Your task to perform on an android device: When is my next appointment? Image 0: 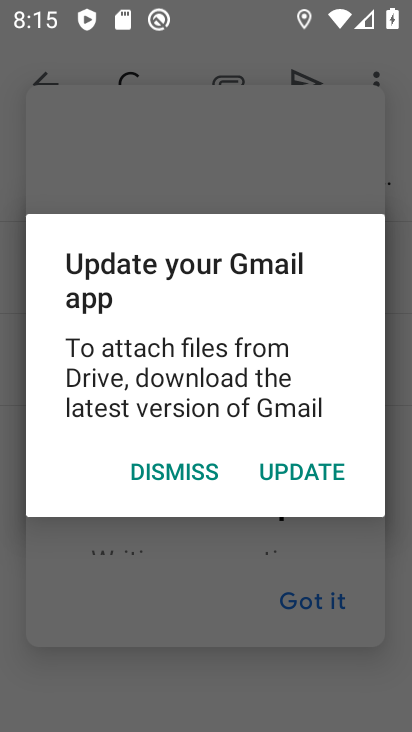
Step 0: press home button
Your task to perform on an android device: When is my next appointment? Image 1: 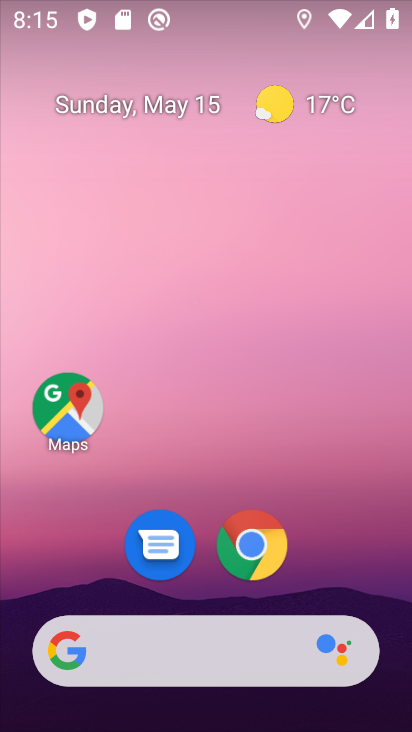
Step 1: click (62, 402)
Your task to perform on an android device: When is my next appointment? Image 2: 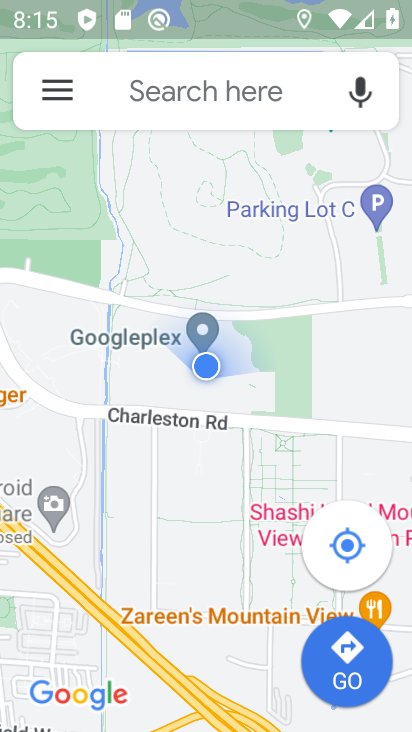
Step 2: task complete